Your task to perform on an android device: Empty the shopping cart on bestbuy.com. Add logitech g910 to the cart on bestbuy.com, then select checkout. Image 0: 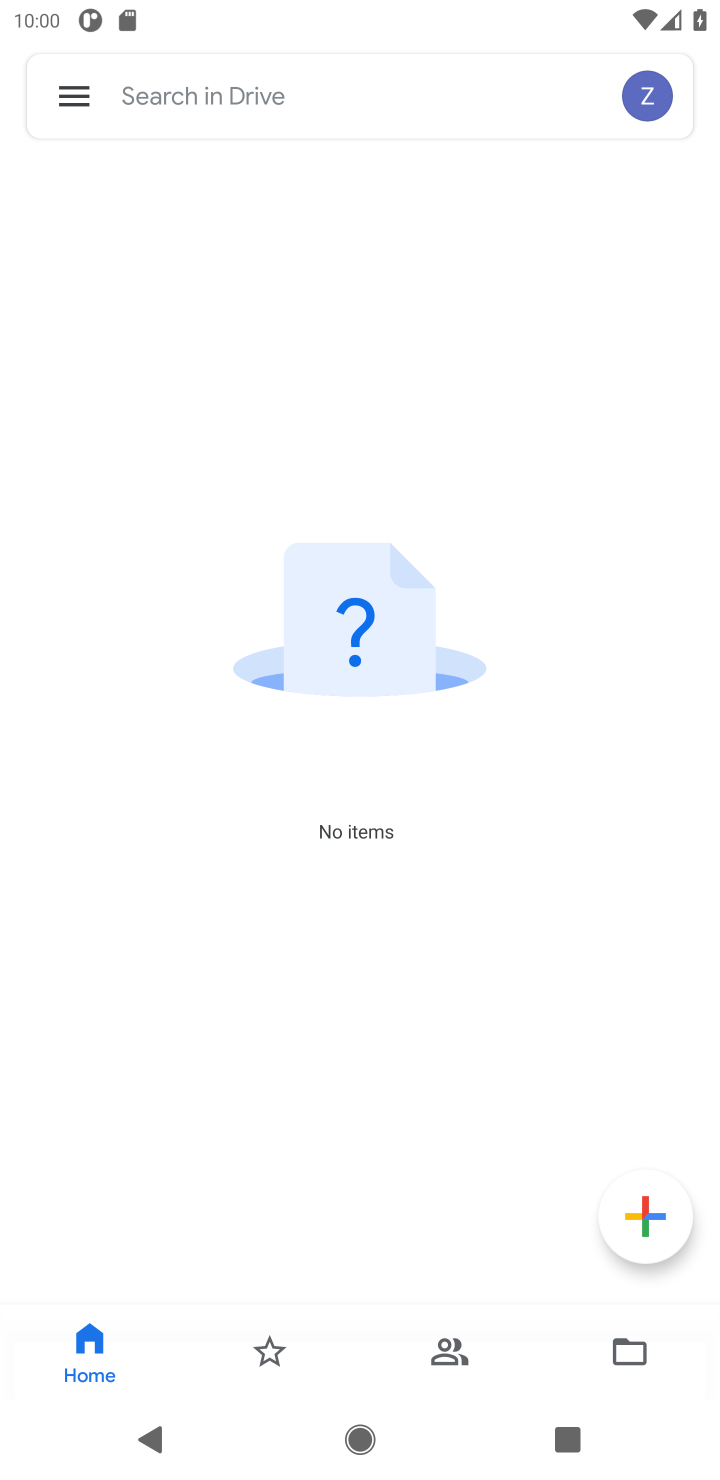
Step 0: task complete